Your task to perform on an android device: Show me the alarms in the clock app Image 0: 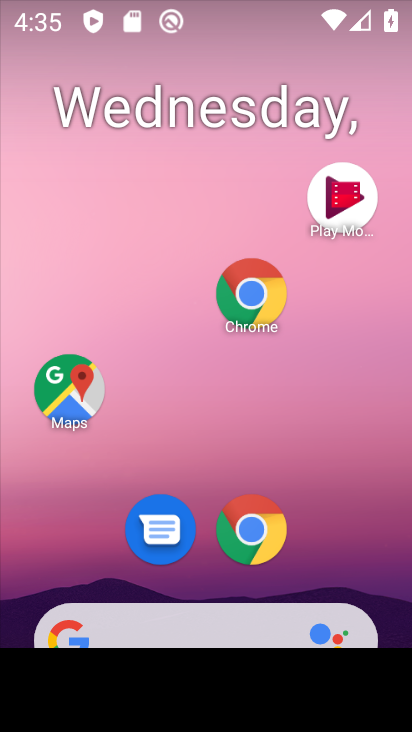
Step 0: press home button
Your task to perform on an android device: Show me the alarms in the clock app Image 1: 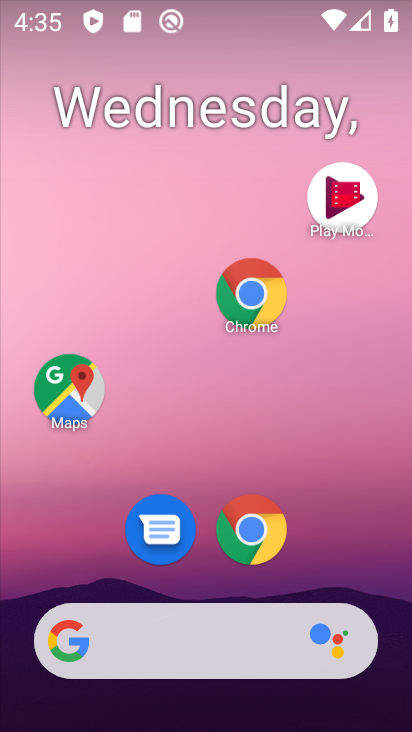
Step 1: drag from (317, 392) to (319, 187)
Your task to perform on an android device: Show me the alarms in the clock app Image 2: 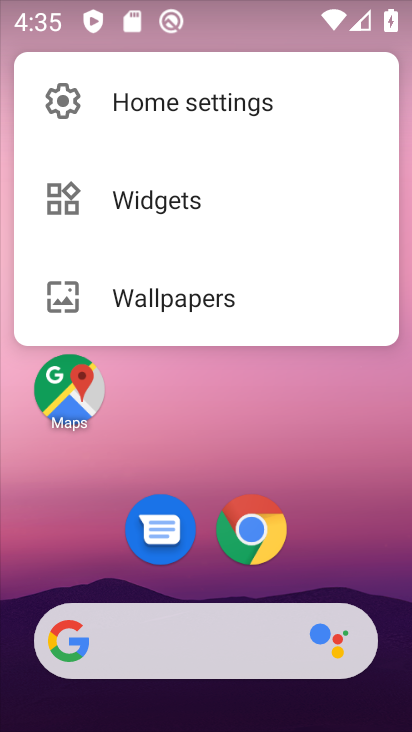
Step 2: drag from (334, 474) to (334, 357)
Your task to perform on an android device: Show me the alarms in the clock app Image 3: 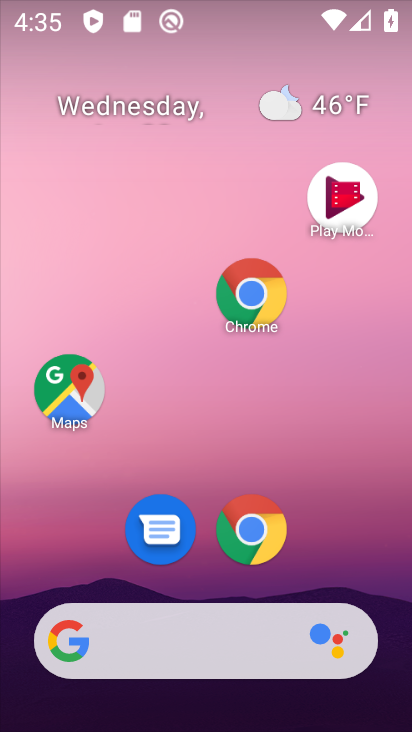
Step 3: drag from (324, 497) to (330, 300)
Your task to perform on an android device: Show me the alarms in the clock app Image 4: 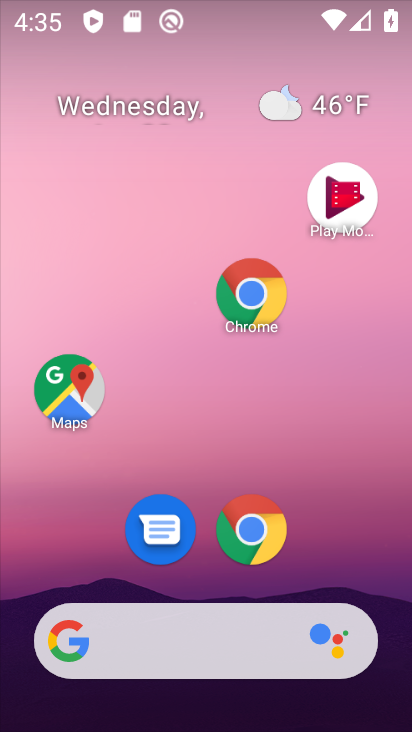
Step 4: drag from (330, 504) to (339, 253)
Your task to perform on an android device: Show me the alarms in the clock app Image 5: 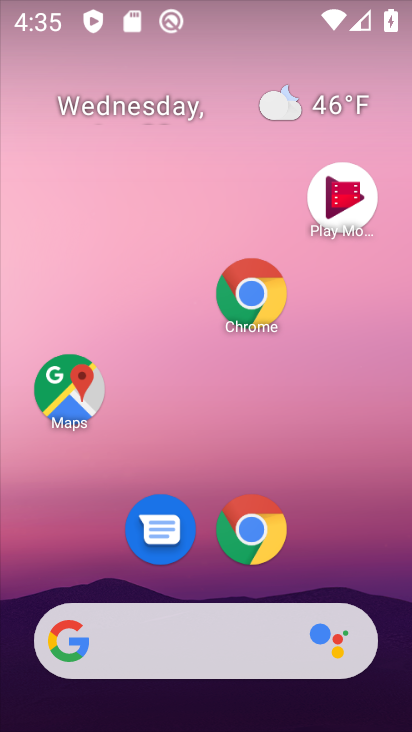
Step 5: drag from (190, 449) to (209, 1)
Your task to perform on an android device: Show me the alarms in the clock app Image 6: 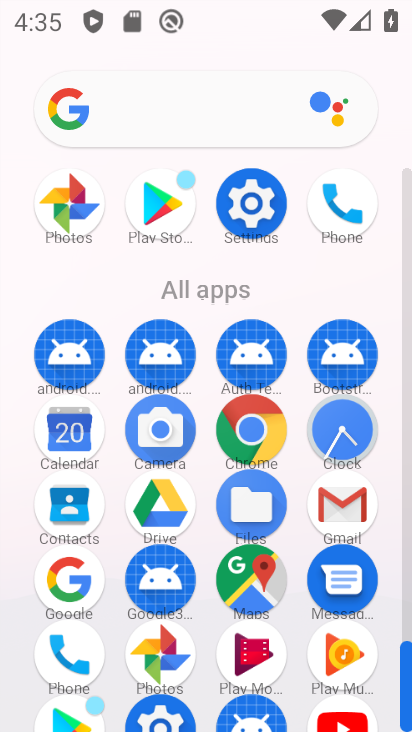
Step 6: click (349, 437)
Your task to perform on an android device: Show me the alarms in the clock app Image 7: 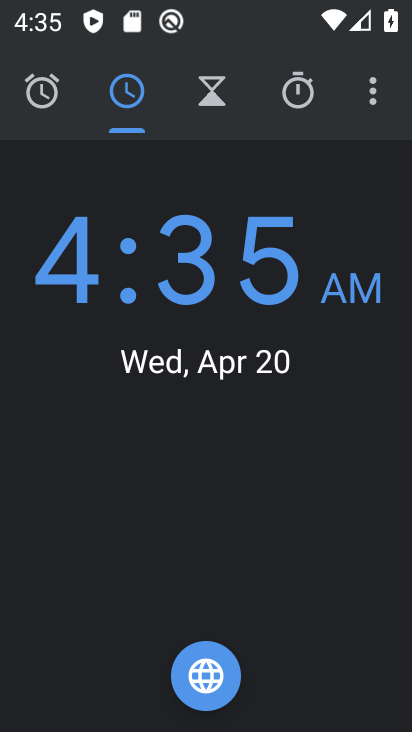
Step 7: click (57, 95)
Your task to perform on an android device: Show me the alarms in the clock app Image 8: 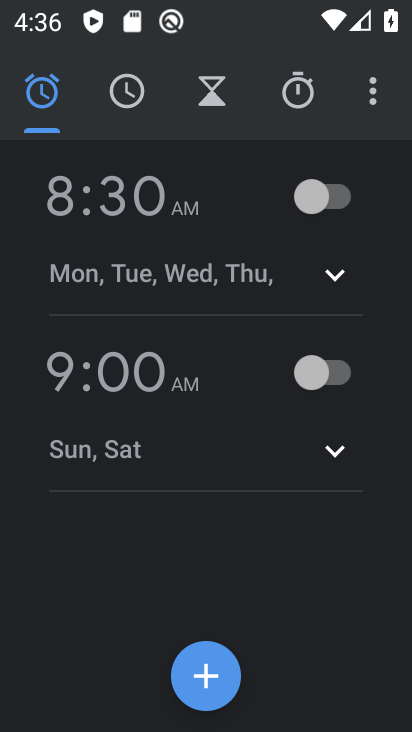
Step 8: task complete